Your task to perform on an android device: Go to internet settings Image 0: 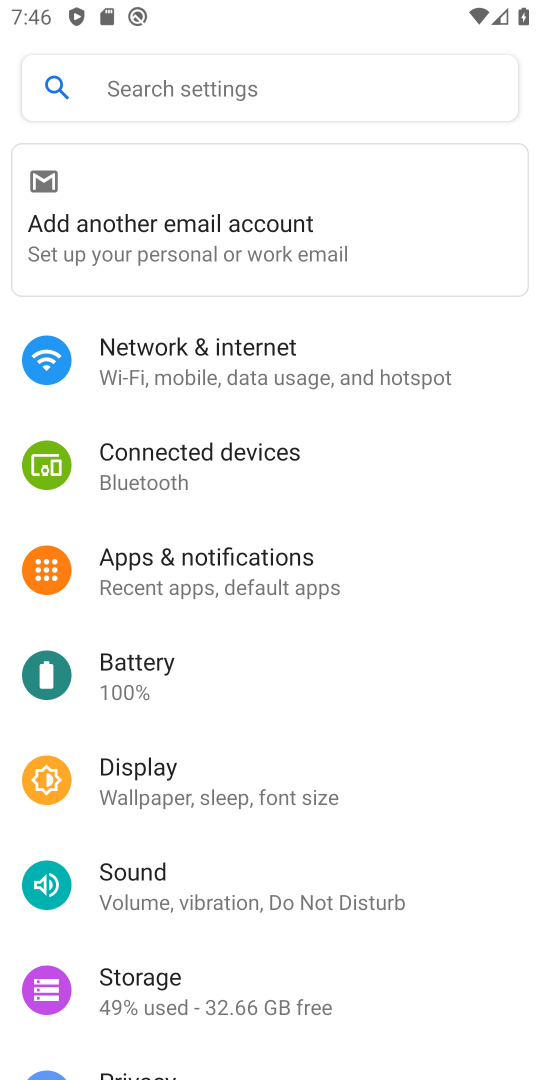
Step 0: press home button
Your task to perform on an android device: Go to internet settings Image 1: 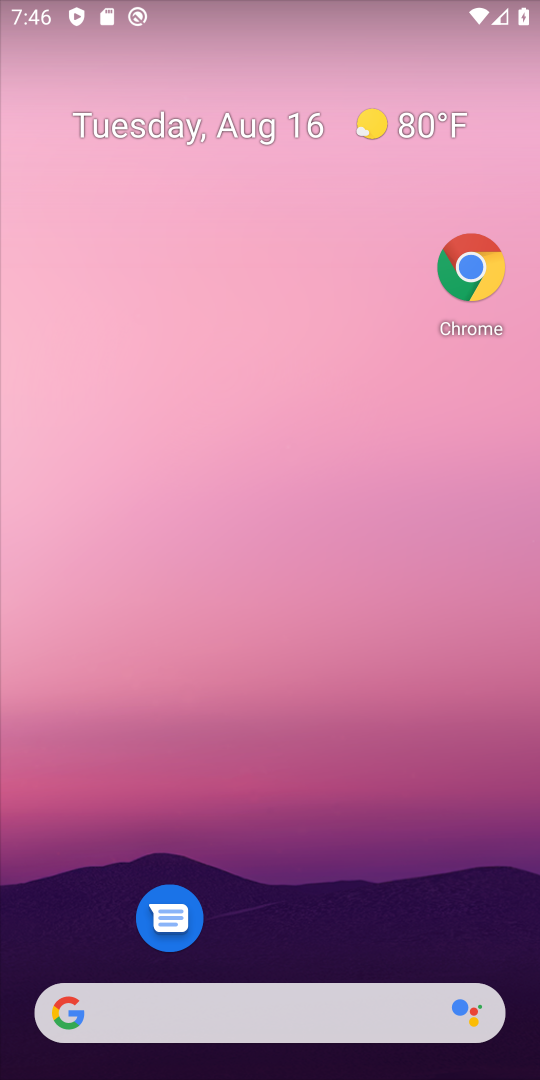
Step 1: drag from (253, 973) to (411, 0)
Your task to perform on an android device: Go to internet settings Image 2: 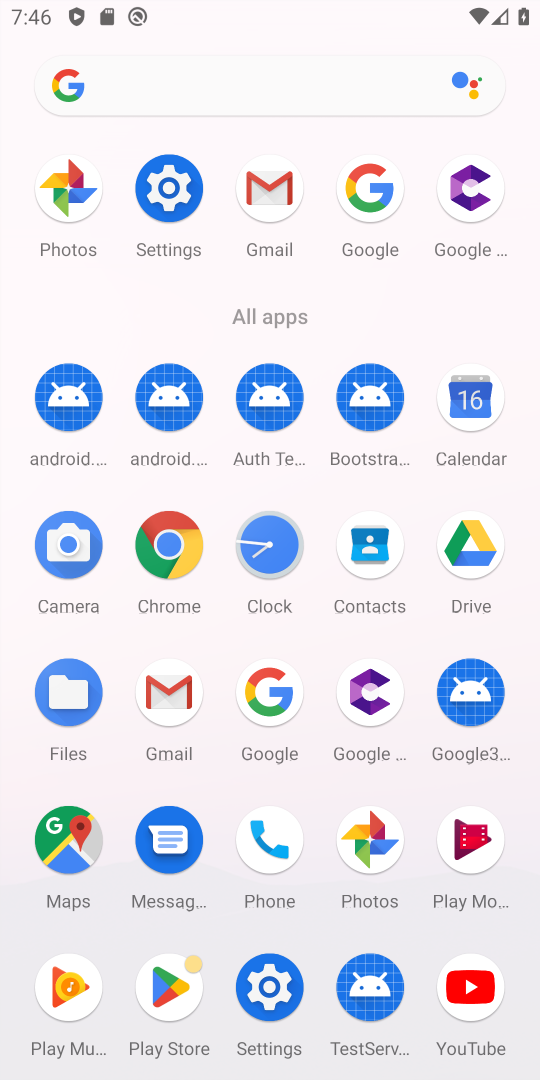
Step 2: click (183, 235)
Your task to perform on an android device: Go to internet settings Image 3: 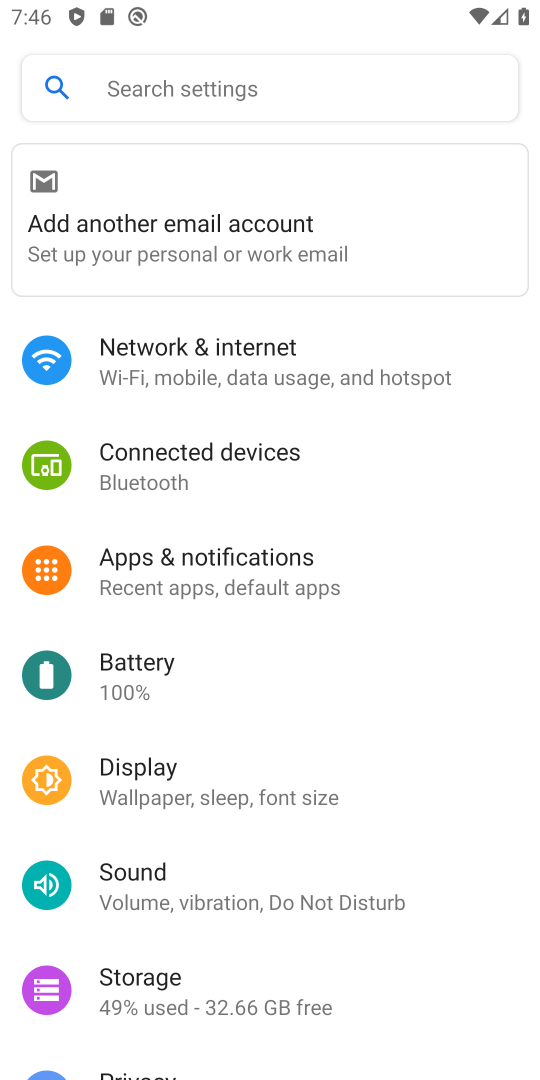
Step 3: click (341, 376)
Your task to perform on an android device: Go to internet settings Image 4: 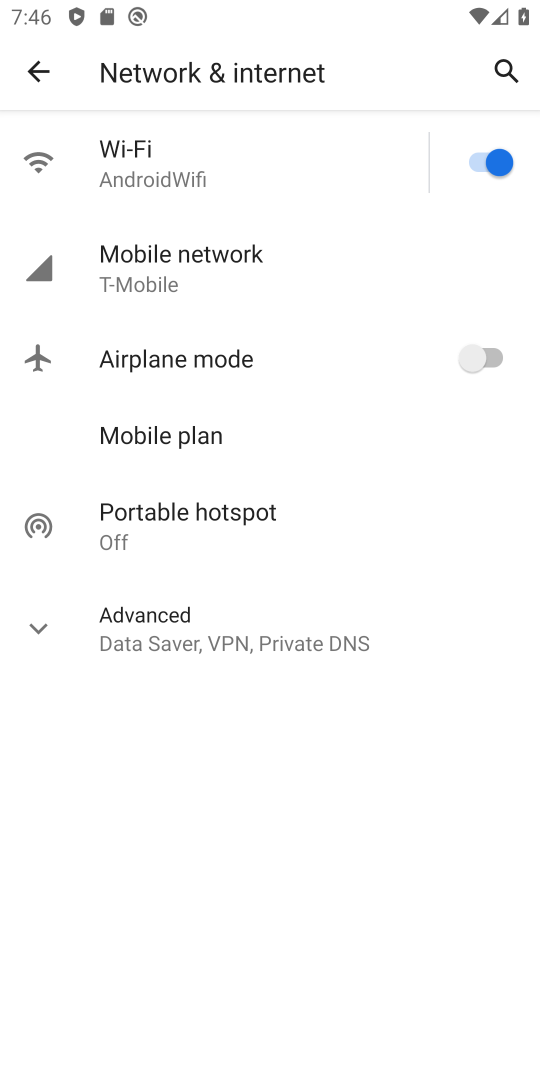
Step 4: click (200, 257)
Your task to perform on an android device: Go to internet settings Image 5: 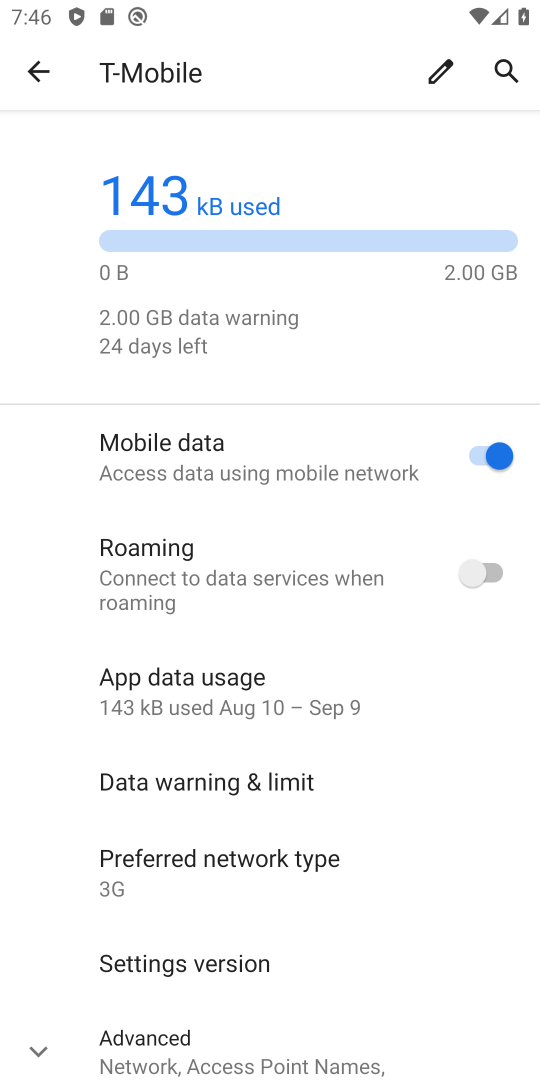
Step 5: task complete